Your task to perform on an android device: Turn on the flashlight Image 0: 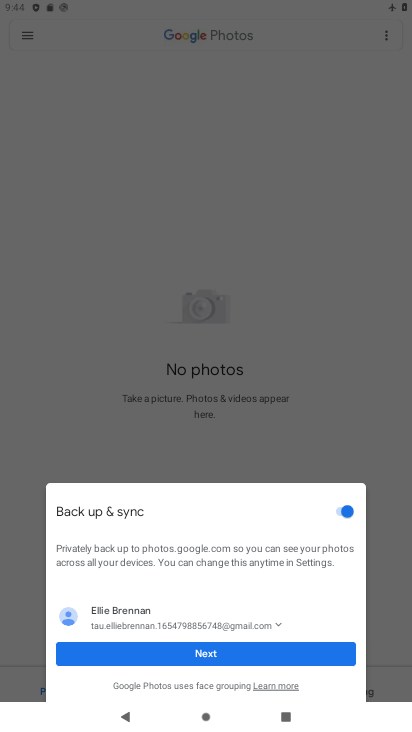
Step 0: press home button
Your task to perform on an android device: Turn on the flashlight Image 1: 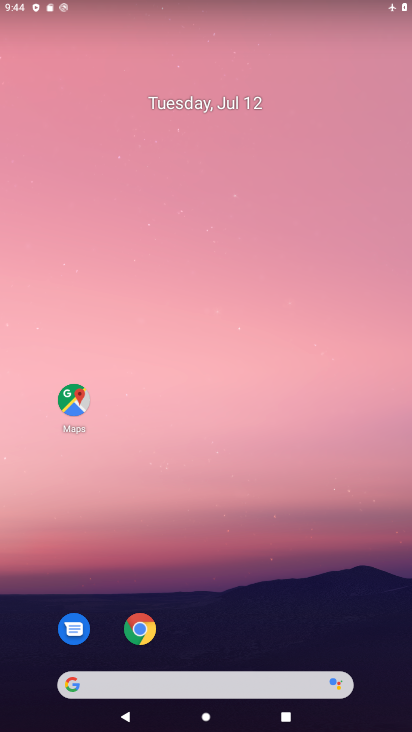
Step 1: task complete